Your task to perform on an android device: add a contact in the contacts app Image 0: 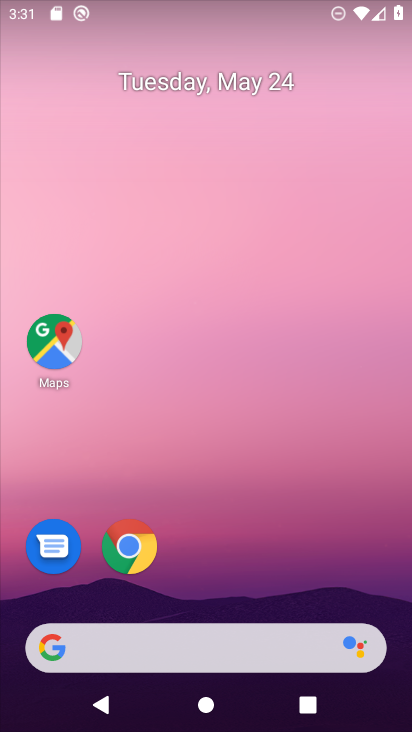
Step 0: drag from (293, 548) to (189, 45)
Your task to perform on an android device: add a contact in the contacts app Image 1: 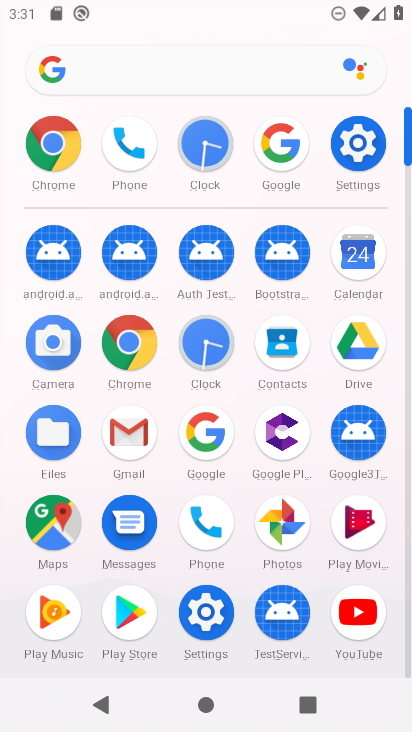
Step 1: click (290, 351)
Your task to perform on an android device: add a contact in the contacts app Image 2: 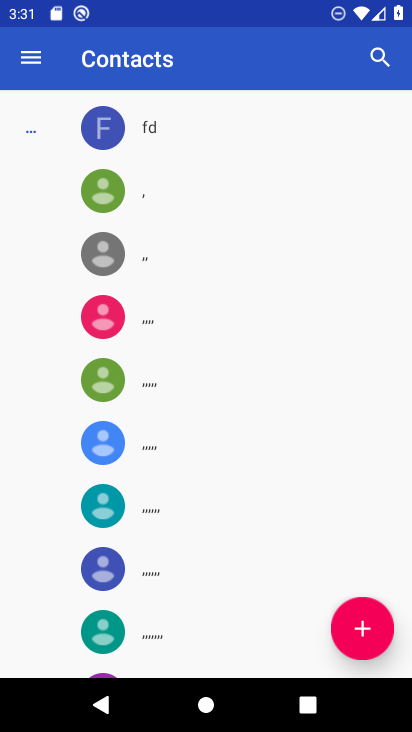
Step 2: click (377, 620)
Your task to perform on an android device: add a contact in the contacts app Image 3: 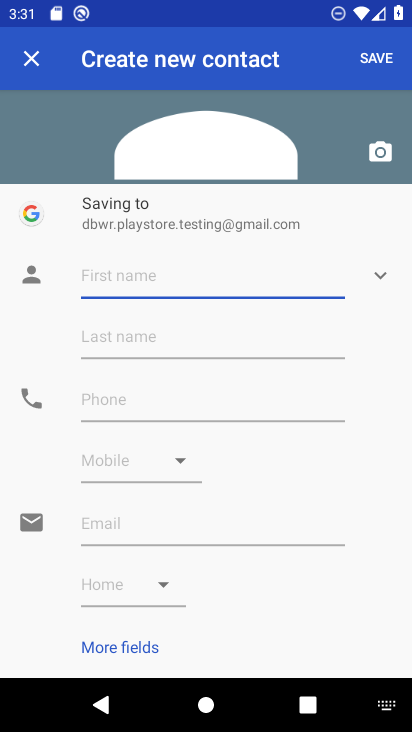
Step 3: type "fdgsdf"
Your task to perform on an android device: add a contact in the contacts app Image 4: 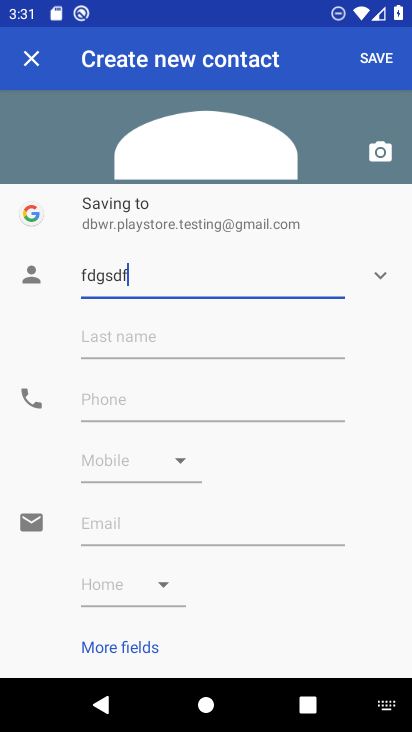
Step 4: type ""
Your task to perform on an android device: add a contact in the contacts app Image 5: 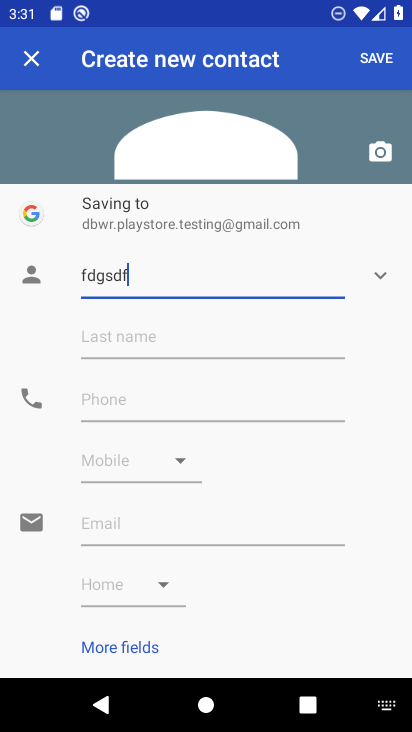
Step 5: click (202, 351)
Your task to perform on an android device: add a contact in the contacts app Image 6: 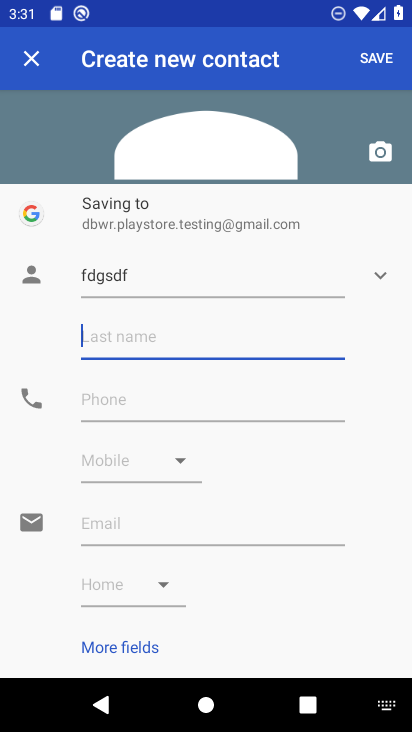
Step 6: type "fgsdf"
Your task to perform on an android device: add a contact in the contacts app Image 7: 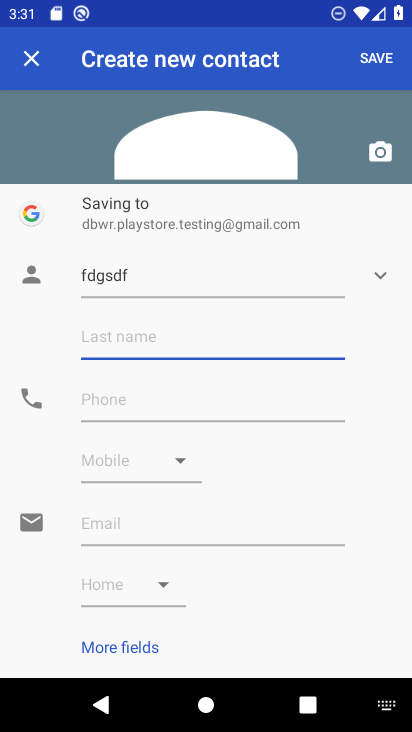
Step 7: click (281, 406)
Your task to perform on an android device: add a contact in the contacts app Image 8: 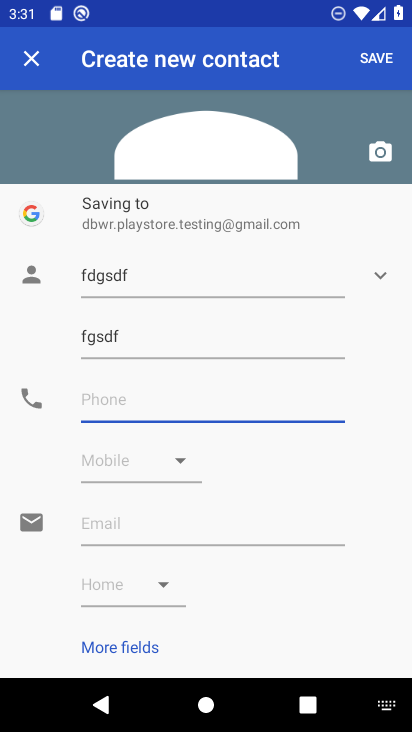
Step 8: type "5634563456"
Your task to perform on an android device: add a contact in the contacts app Image 9: 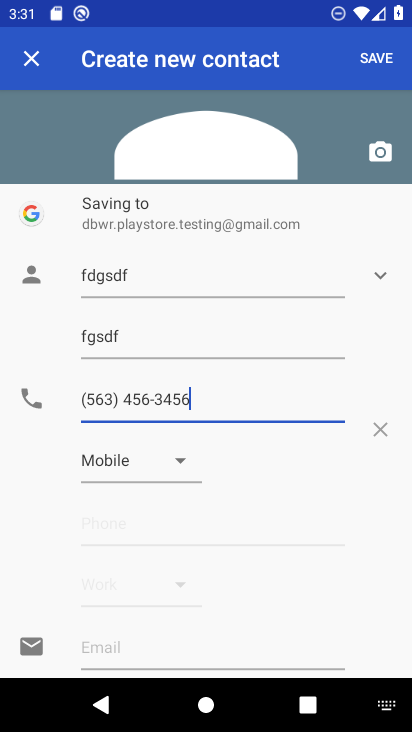
Step 9: type ""
Your task to perform on an android device: add a contact in the contacts app Image 10: 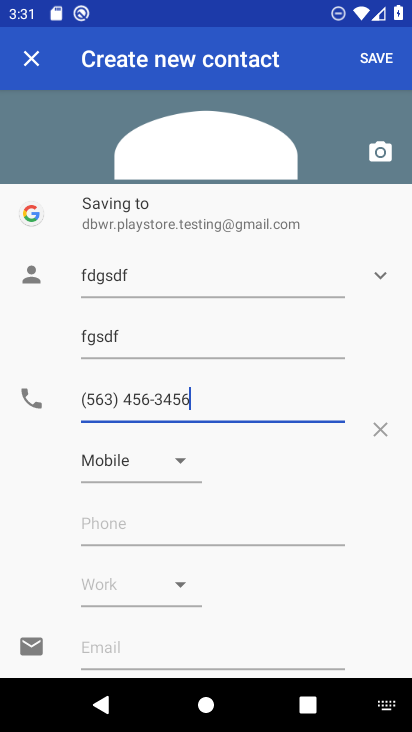
Step 10: click (364, 51)
Your task to perform on an android device: add a contact in the contacts app Image 11: 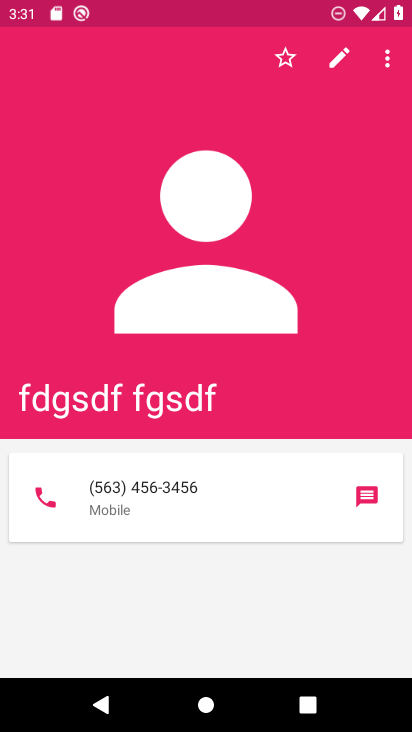
Step 11: task complete